Your task to perform on an android device: Open Wikipedia Image 0: 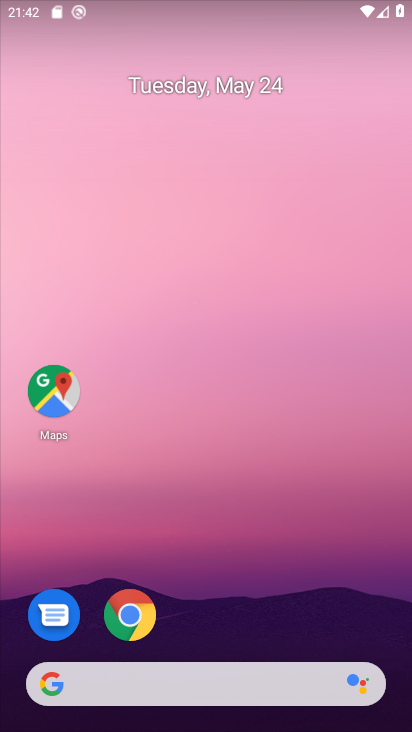
Step 0: drag from (260, 559) to (269, 133)
Your task to perform on an android device: Open Wikipedia Image 1: 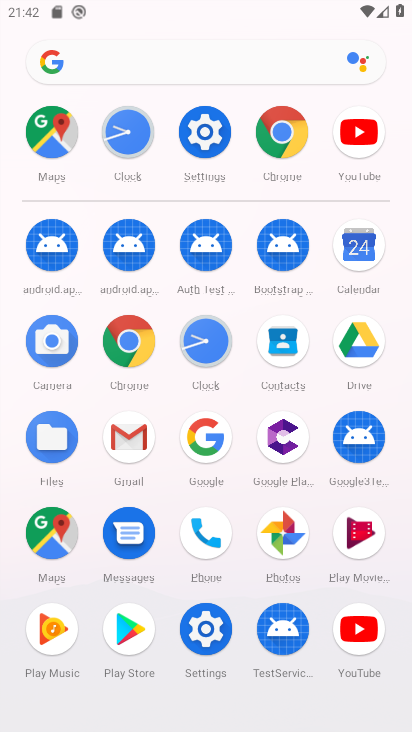
Step 1: click (117, 341)
Your task to perform on an android device: Open Wikipedia Image 2: 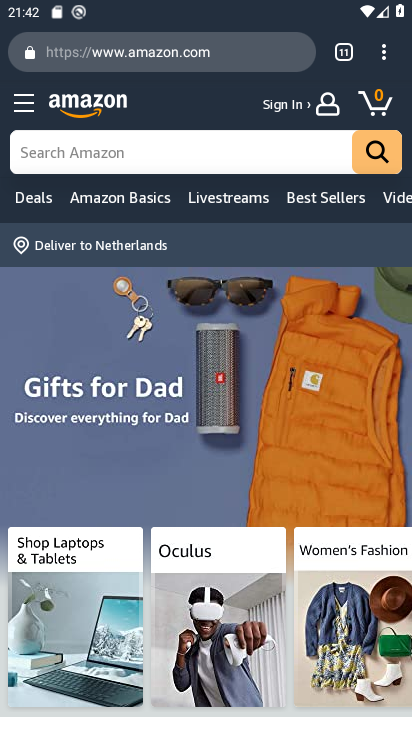
Step 2: click (385, 49)
Your task to perform on an android device: Open Wikipedia Image 3: 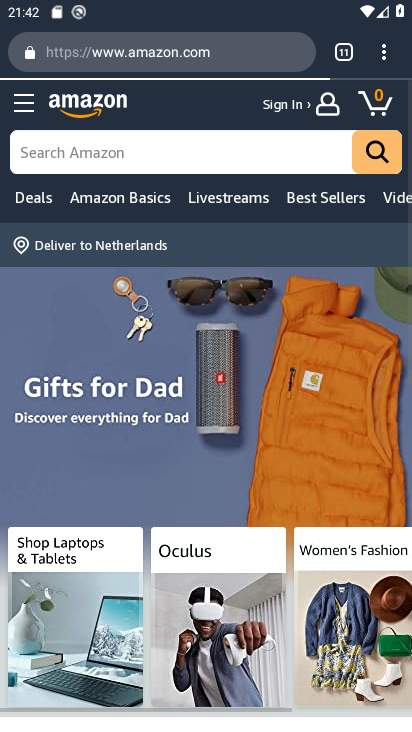
Step 3: click (371, 42)
Your task to perform on an android device: Open Wikipedia Image 4: 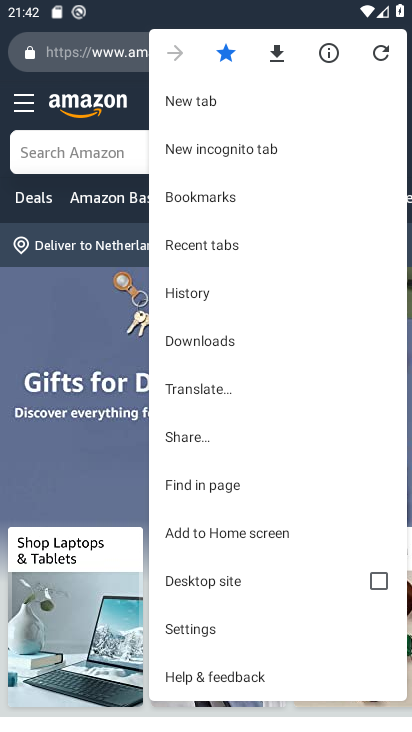
Step 4: click (183, 99)
Your task to perform on an android device: Open Wikipedia Image 5: 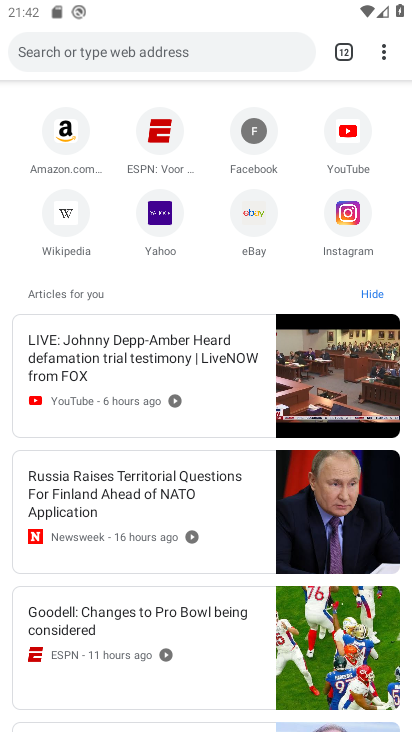
Step 5: click (65, 222)
Your task to perform on an android device: Open Wikipedia Image 6: 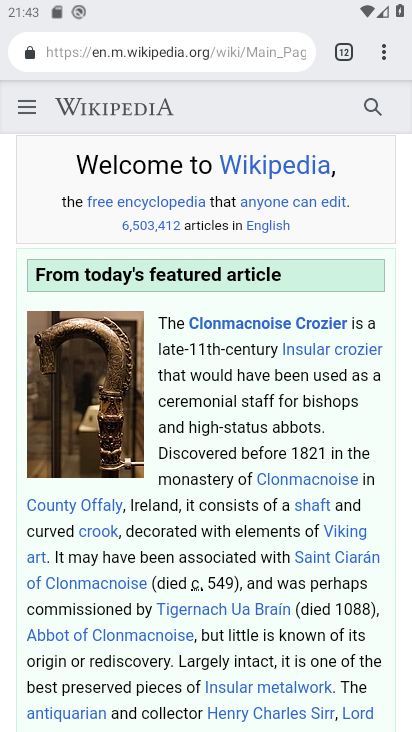
Step 6: task complete